Your task to perform on an android device: make emails show in primary in the gmail app Image 0: 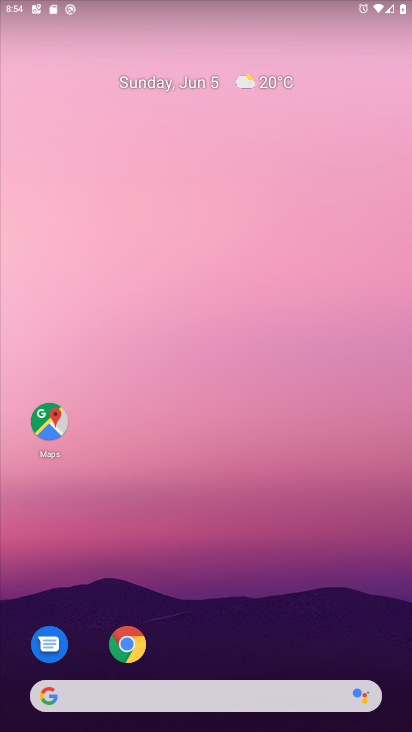
Step 0: drag from (294, 574) to (298, 334)
Your task to perform on an android device: make emails show in primary in the gmail app Image 1: 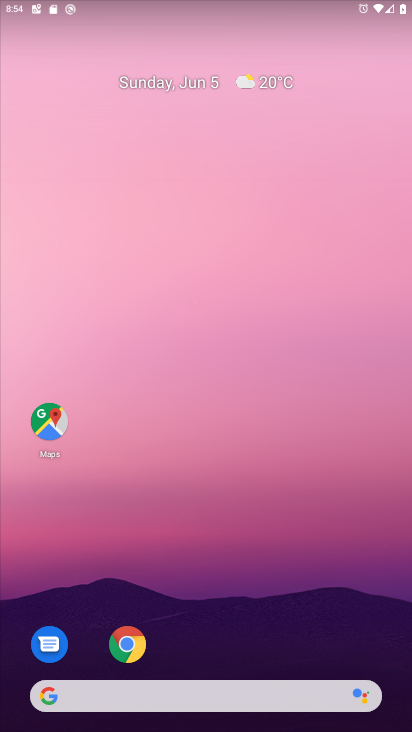
Step 1: drag from (293, 642) to (342, 253)
Your task to perform on an android device: make emails show in primary in the gmail app Image 2: 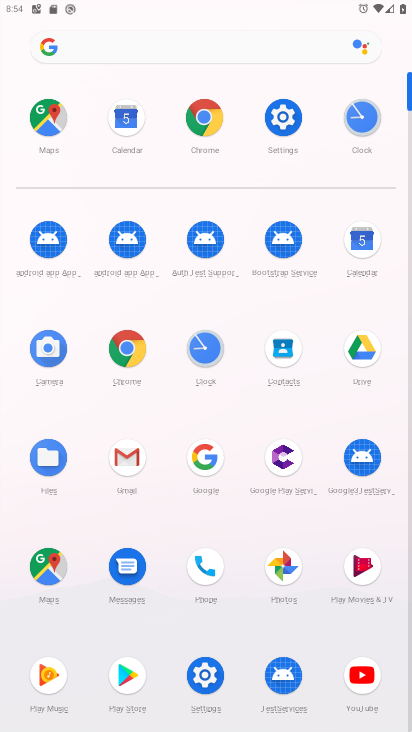
Step 2: click (124, 470)
Your task to perform on an android device: make emails show in primary in the gmail app Image 3: 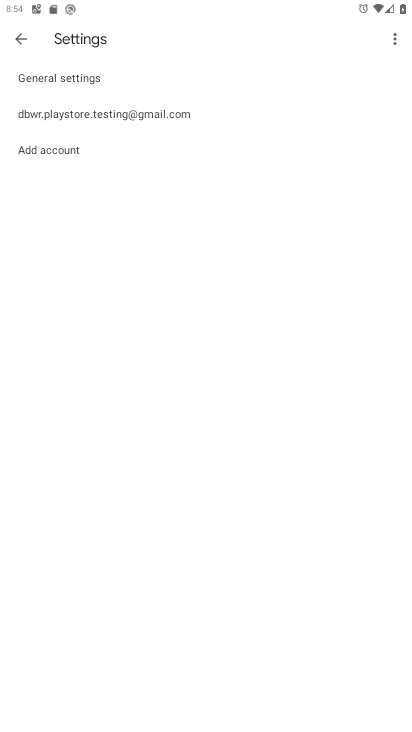
Step 3: click (101, 126)
Your task to perform on an android device: make emails show in primary in the gmail app Image 4: 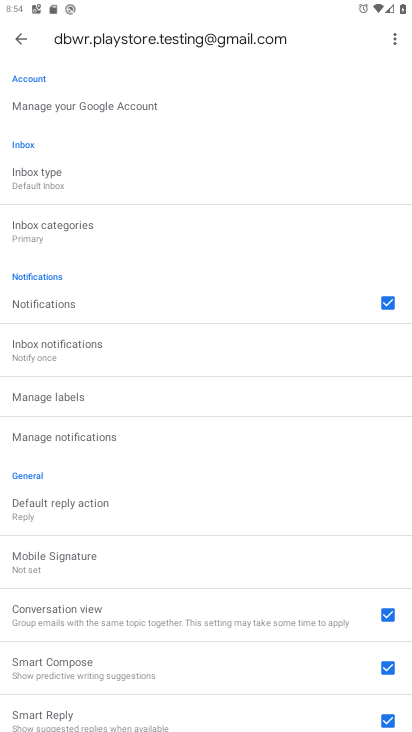
Step 4: click (89, 232)
Your task to perform on an android device: make emails show in primary in the gmail app Image 5: 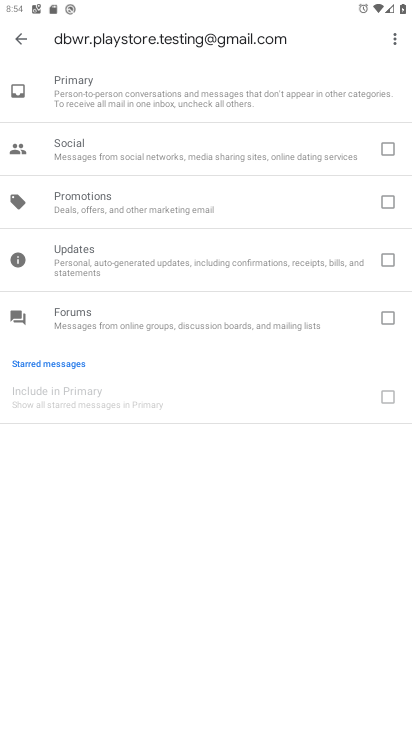
Step 5: click (22, 49)
Your task to perform on an android device: make emails show in primary in the gmail app Image 6: 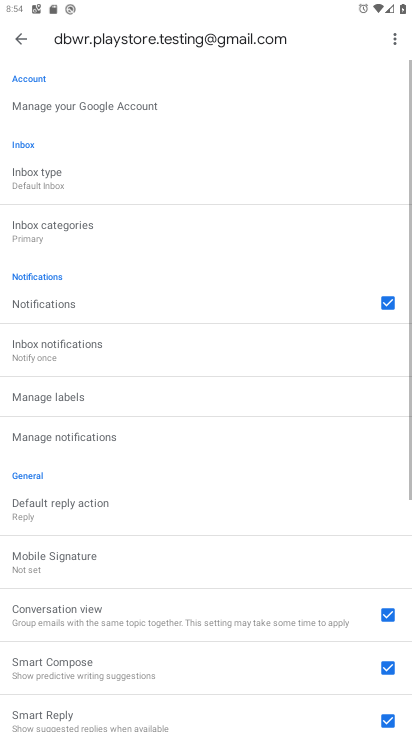
Step 6: click (15, 41)
Your task to perform on an android device: make emails show in primary in the gmail app Image 7: 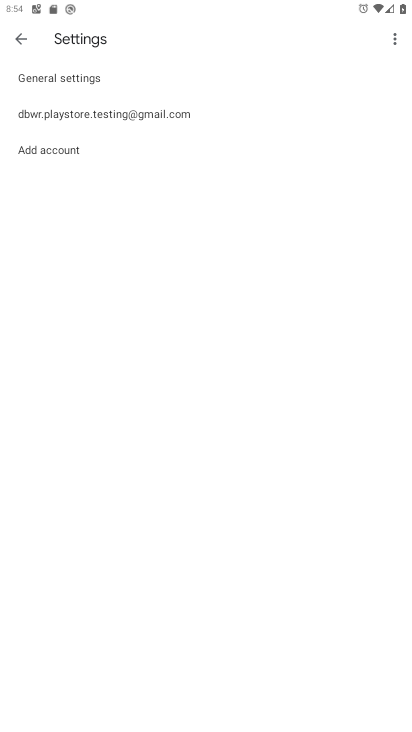
Step 7: click (12, 37)
Your task to perform on an android device: make emails show in primary in the gmail app Image 8: 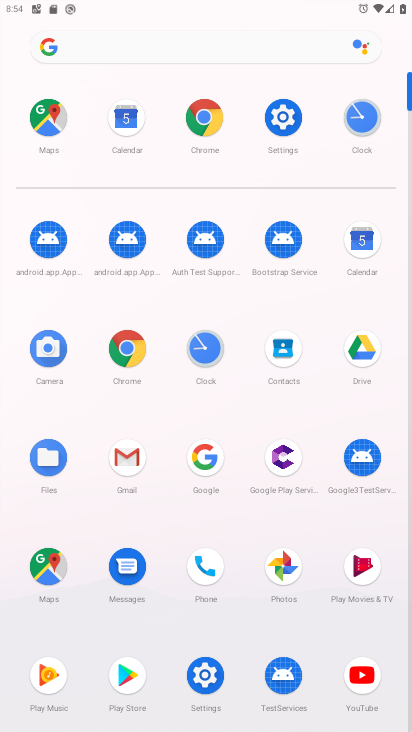
Step 8: click (123, 467)
Your task to perform on an android device: make emails show in primary in the gmail app Image 9: 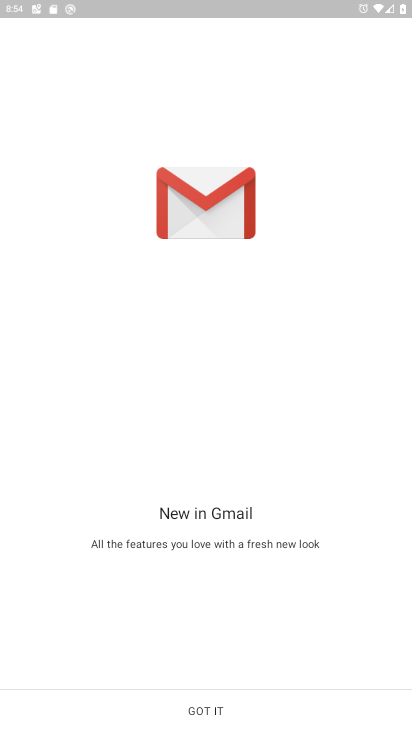
Step 9: click (211, 717)
Your task to perform on an android device: make emails show in primary in the gmail app Image 10: 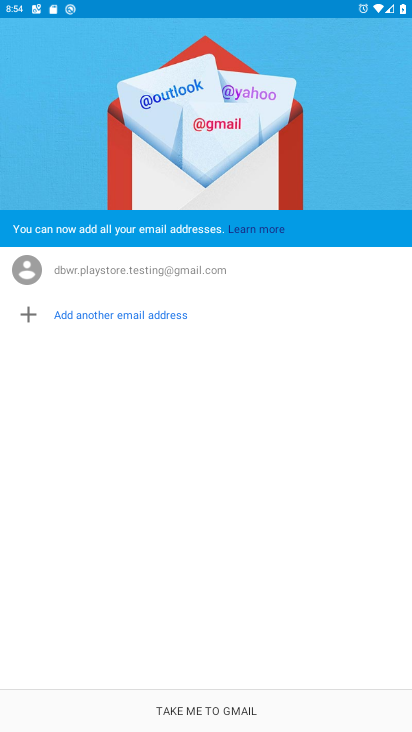
Step 10: click (237, 699)
Your task to perform on an android device: make emails show in primary in the gmail app Image 11: 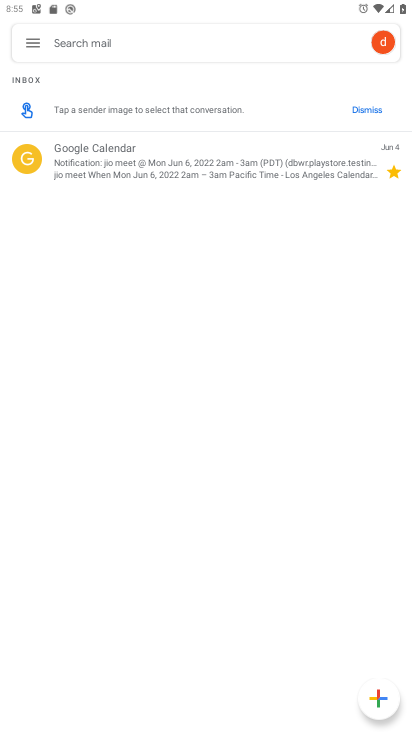
Step 11: click (29, 45)
Your task to perform on an android device: make emails show in primary in the gmail app Image 12: 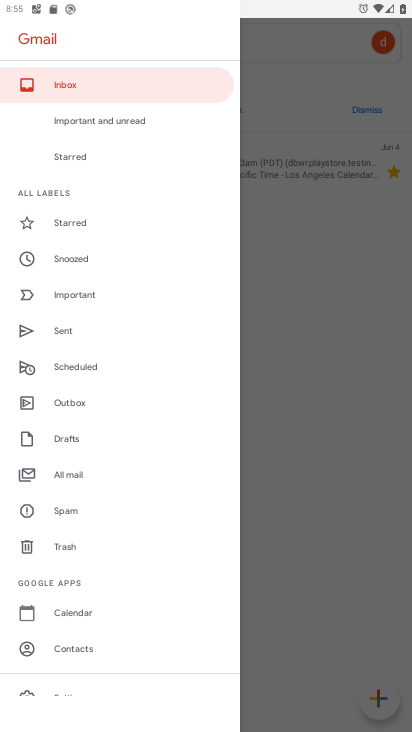
Step 12: task complete